Your task to perform on an android device: make emails show in primary in the gmail app Image 0: 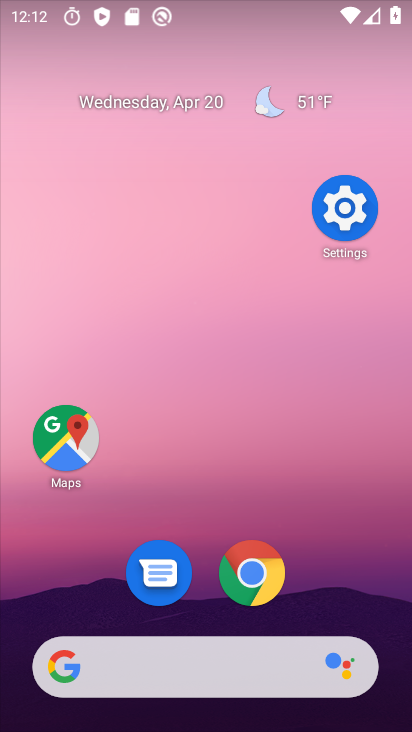
Step 0: drag from (313, 565) to (314, 208)
Your task to perform on an android device: make emails show in primary in the gmail app Image 1: 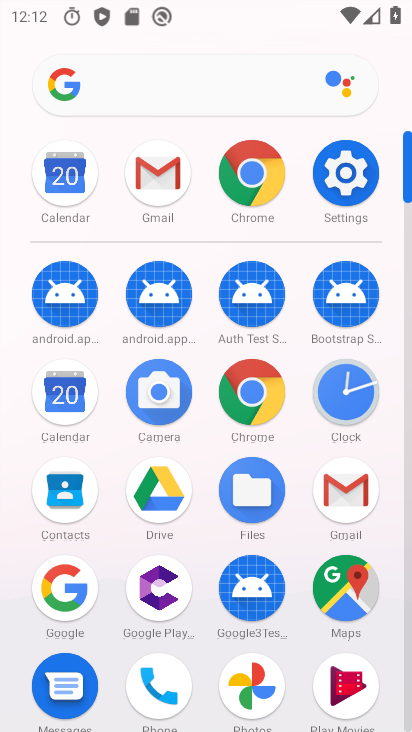
Step 1: click (349, 511)
Your task to perform on an android device: make emails show in primary in the gmail app Image 2: 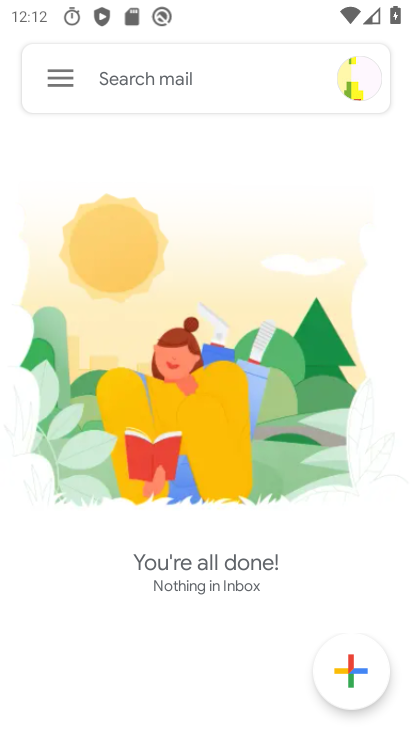
Step 2: click (63, 76)
Your task to perform on an android device: make emails show in primary in the gmail app Image 3: 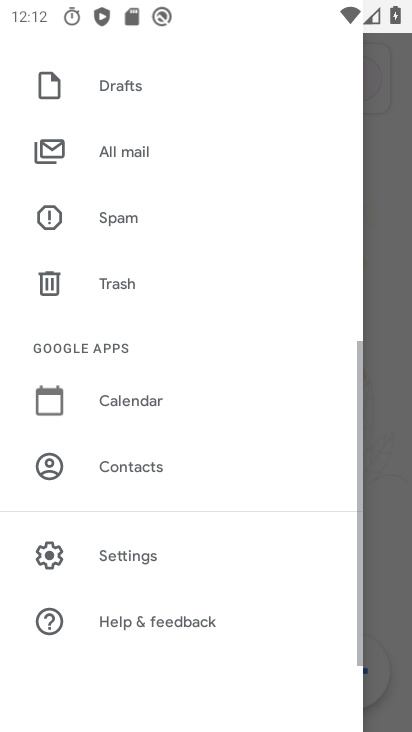
Step 3: drag from (251, 151) to (239, 538)
Your task to perform on an android device: make emails show in primary in the gmail app Image 4: 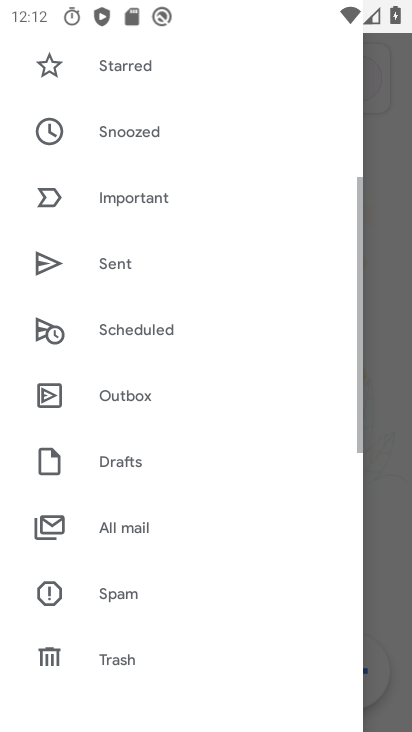
Step 4: drag from (223, 130) to (174, 576)
Your task to perform on an android device: make emails show in primary in the gmail app Image 5: 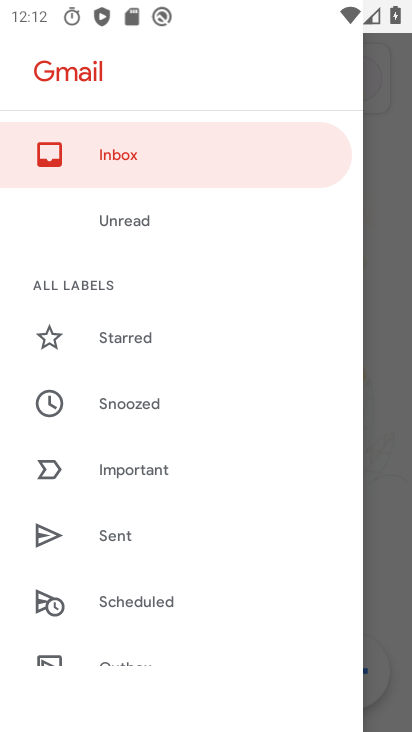
Step 5: drag from (150, 553) to (179, 85)
Your task to perform on an android device: make emails show in primary in the gmail app Image 6: 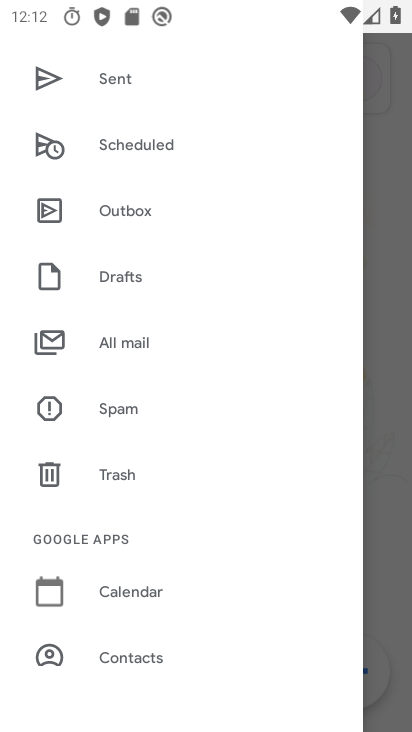
Step 6: drag from (127, 635) to (164, 196)
Your task to perform on an android device: make emails show in primary in the gmail app Image 7: 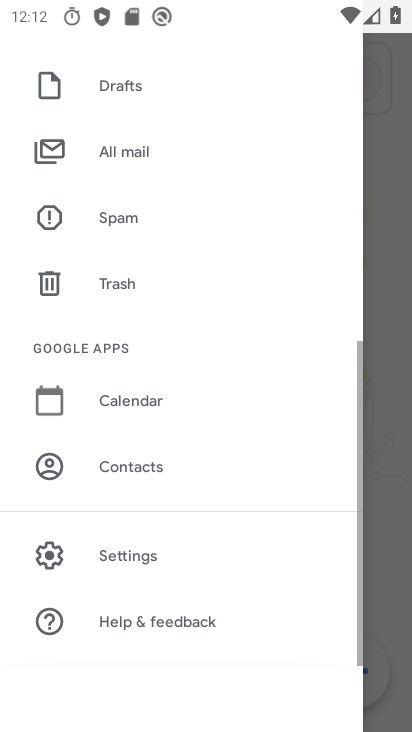
Step 7: click (151, 552)
Your task to perform on an android device: make emails show in primary in the gmail app Image 8: 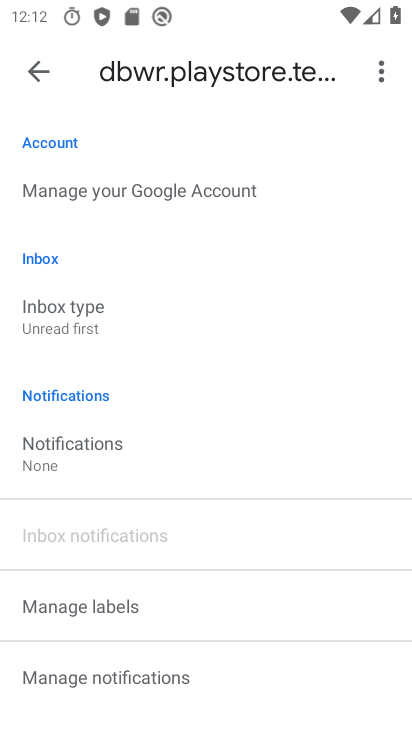
Step 8: click (94, 320)
Your task to perform on an android device: make emails show in primary in the gmail app Image 9: 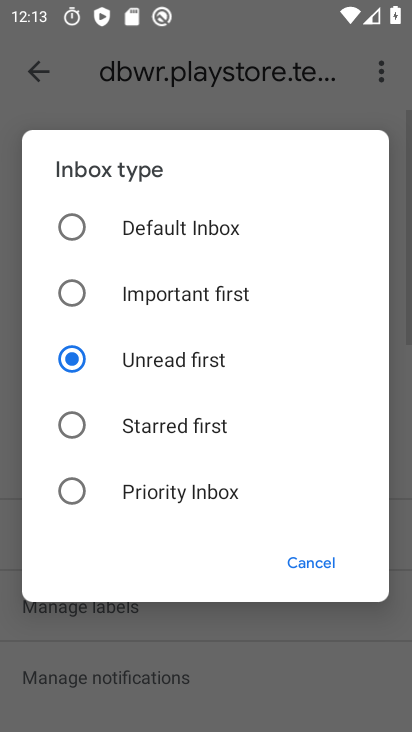
Step 9: click (216, 236)
Your task to perform on an android device: make emails show in primary in the gmail app Image 10: 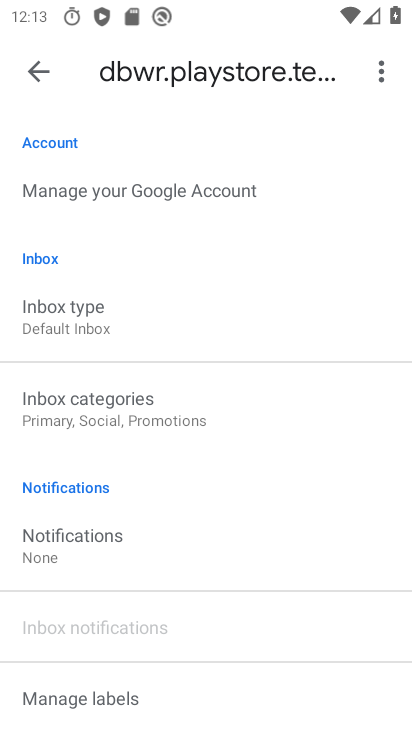
Step 10: press back button
Your task to perform on an android device: make emails show in primary in the gmail app Image 11: 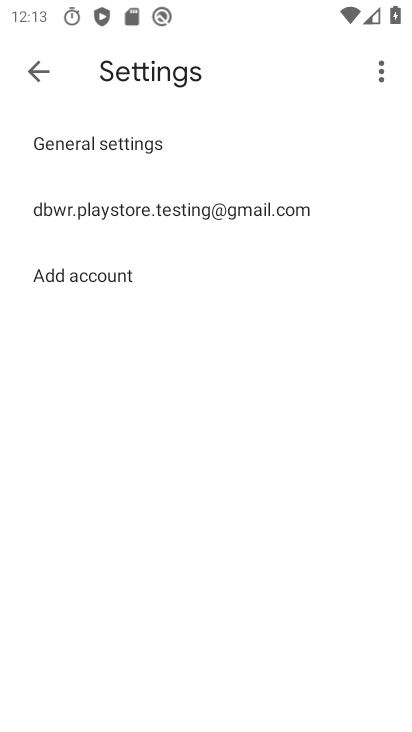
Step 11: press back button
Your task to perform on an android device: make emails show in primary in the gmail app Image 12: 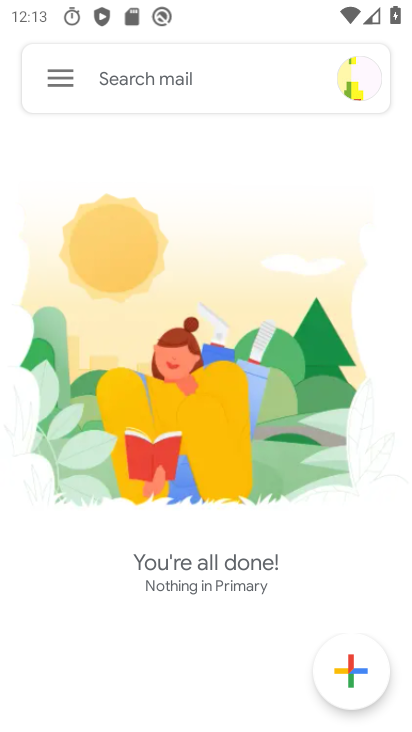
Step 12: click (56, 72)
Your task to perform on an android device: make emails show in primary in the gmail app Image 13: 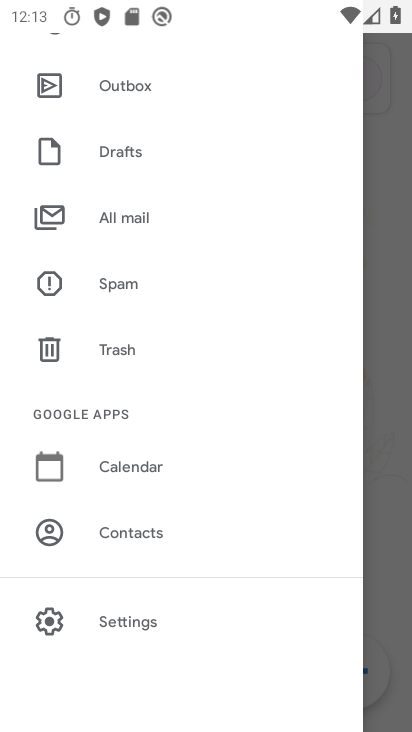
Step 13: drag from (201, 204) to (187, 542)
Your task to perform on an android device: make emails show in primary in the gmail app Image 14: 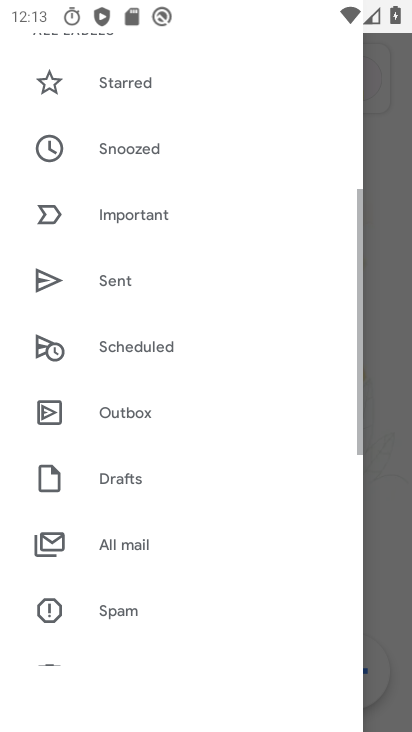
Step 14: drag from (168, 185) to (209, 610)
Your task to perform on an android device: make emails show in primary in the gmail app Image 15: 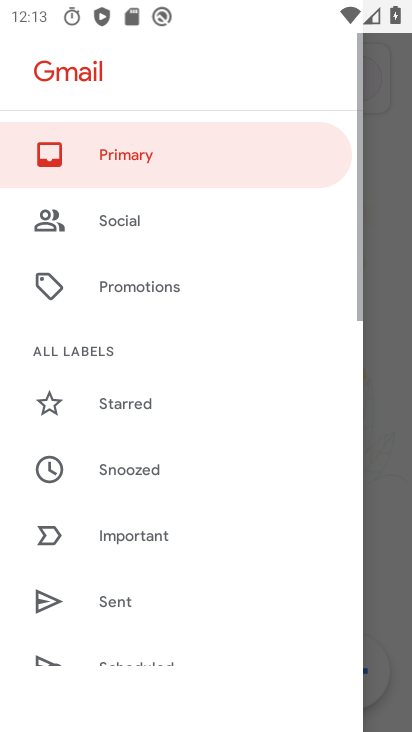
Step 15: click (131, 146)
Your task to perform on an android device: make emails show in primary in the gmail app Image 16: 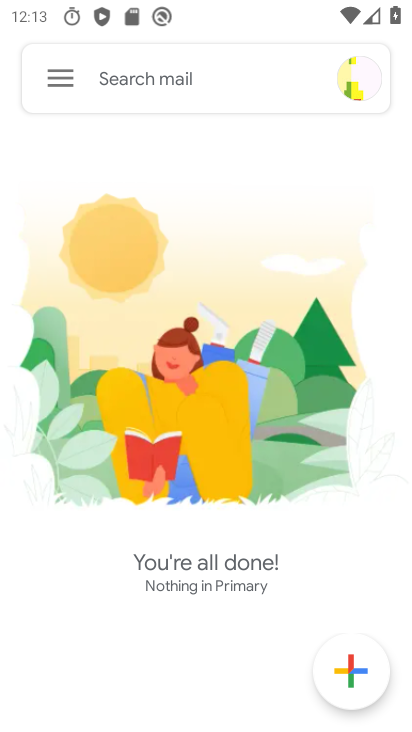
Step 16: task complete